Your task to perform on an android device: Open the map Image 0: 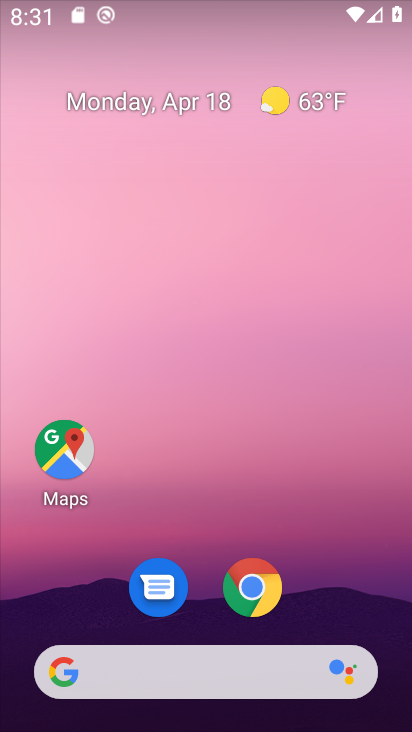
Step 0: click (68, 429)
Your task to perform on an android device: Open the map Image 1: 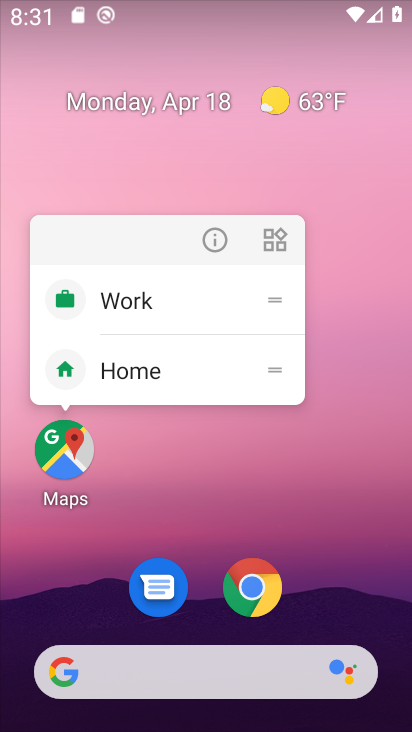
Step 1: click (64, 490)
Your task to perform on an android device: Open the map Image 2: 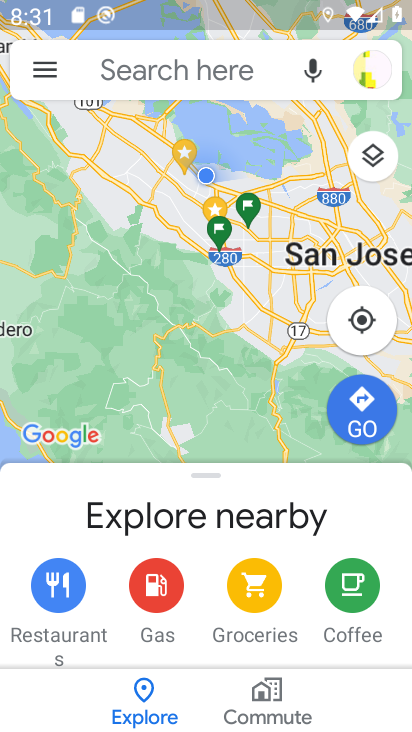
Step 2: task complete